Your task to perform on an android device: Turn on the flashlight Image 0: 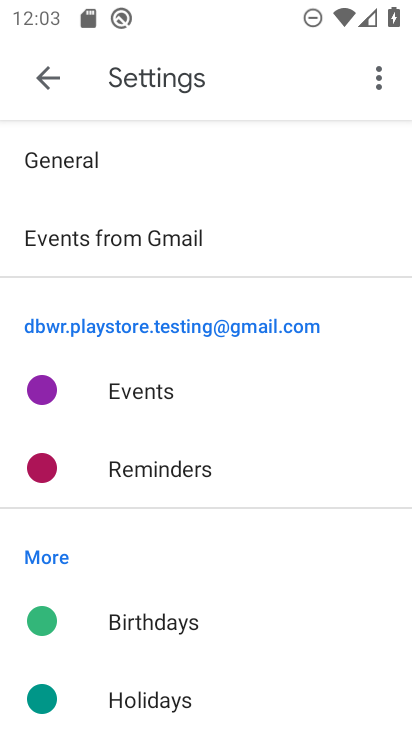
Step 0: press home button
Your task to perform on an android device: Turn on the flashlight Image 1: 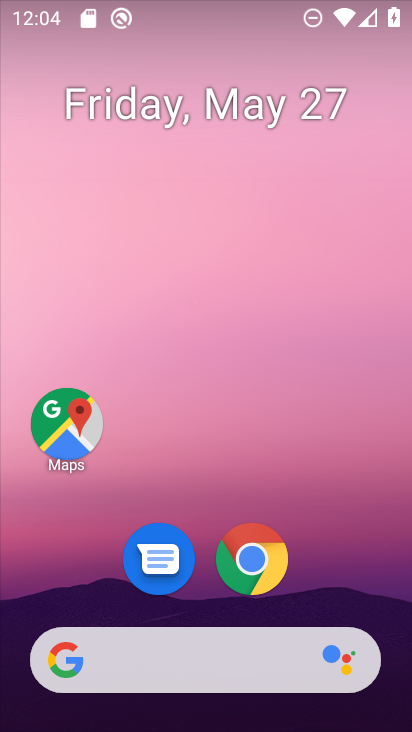
Step 1: drag from (316, 588) to (393, 0)
Your task to perform on an android device: Turn on the flashlight Image 2: 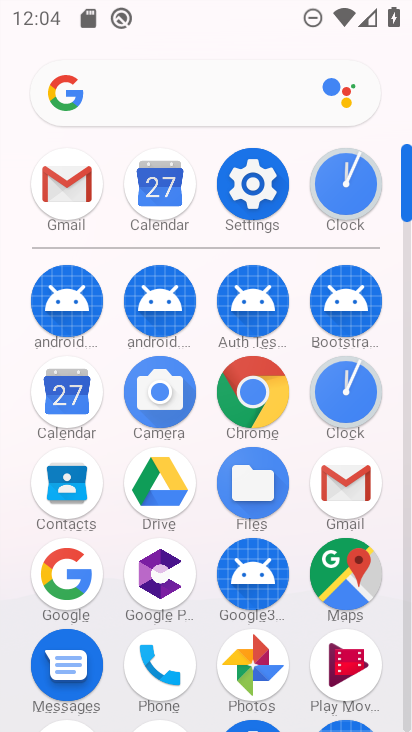
Step 2: click (251, 205)
Your task to perform on an android device: Turn on the flashlight Image 3: 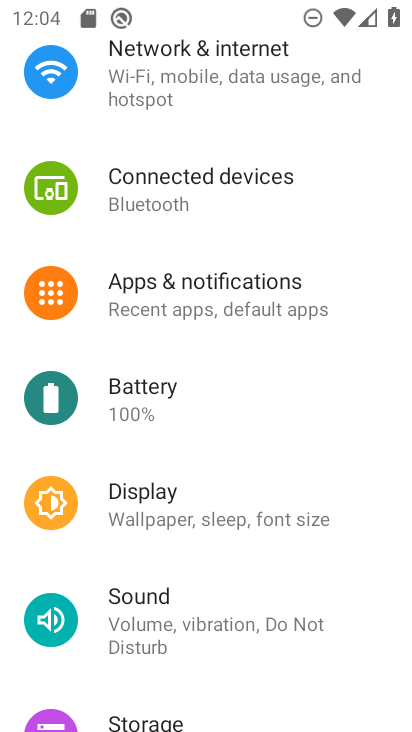
Step 3: click (195, 498)
Your task to perform on an android device: Turn on the flashlight Image 4: 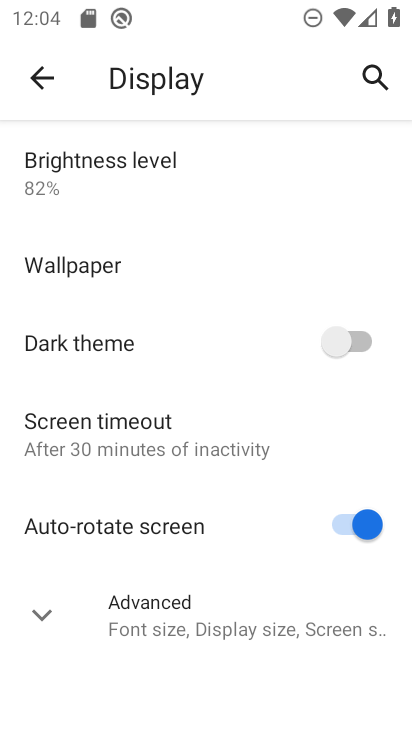
Step 4: task complete